Your task to perform on an android device: check android version Image 0: 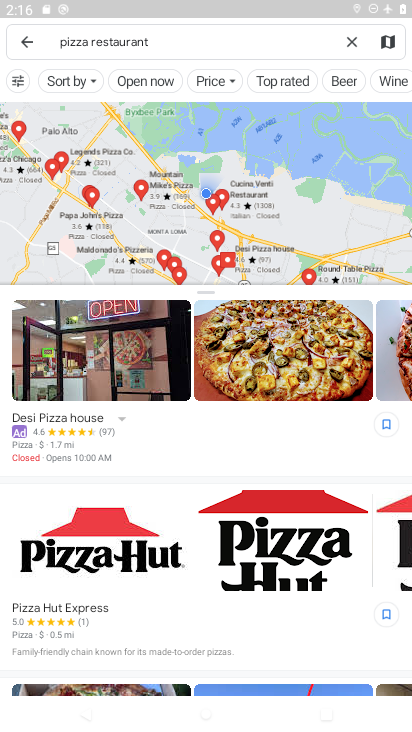
Step 0: press home button
Your task to perform on an android device: check android version Image 1: 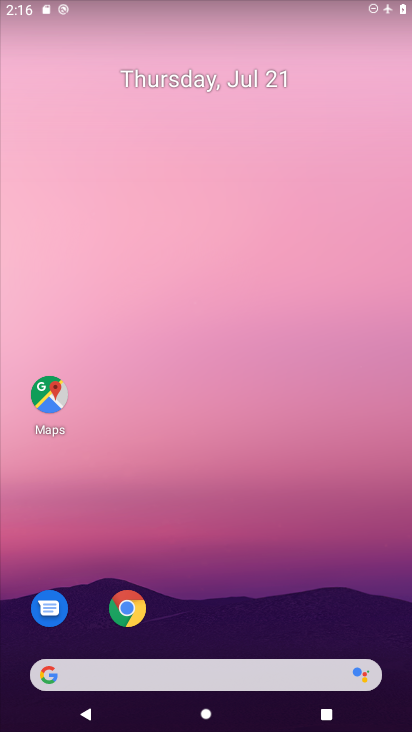
Step 1: drag from (235, 602) to (239, 154)
Your task to perform on an android device: check android version Image 2: 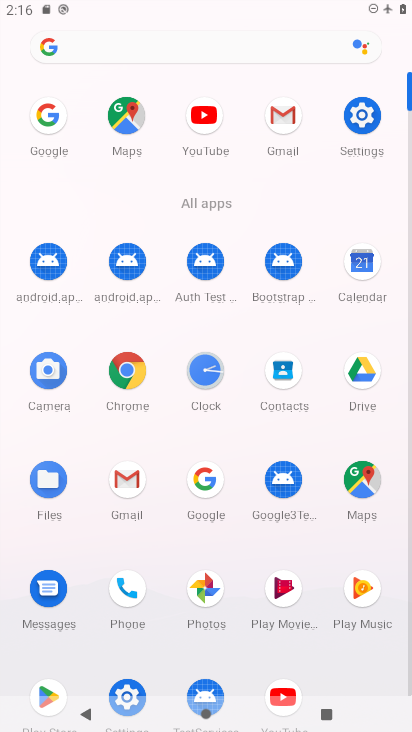
Step 2: click (365, 108)
Your task to perform on an android device: check android version Image 3: 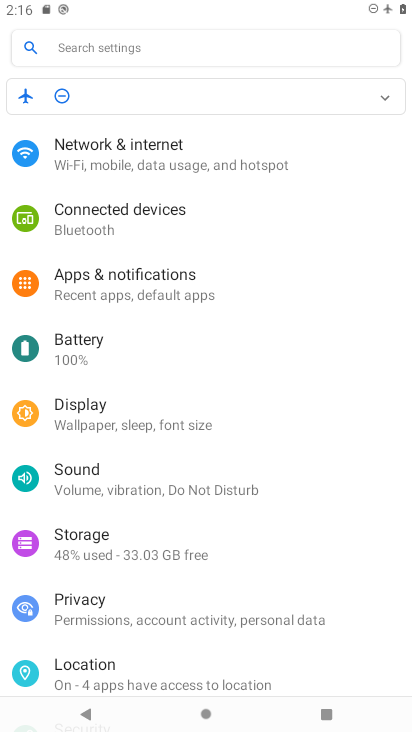
Step 3: drag from (136, 667) to (151, 380)
Your task to perform on an android device: check android version Image 4: 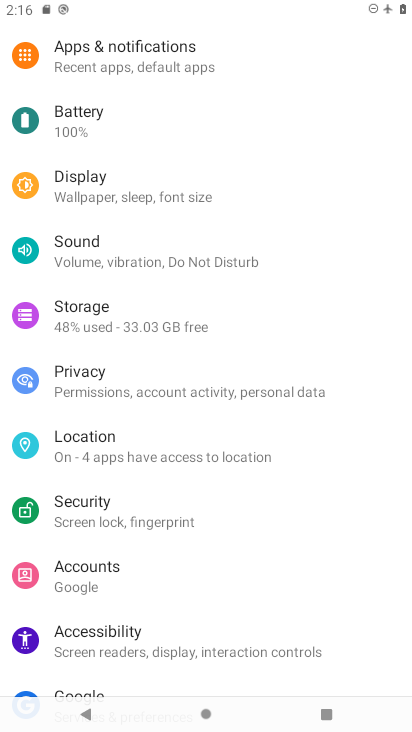
Step 4: drag from (81, 669) to (112, 394)
Your task to perform on an android device: check android version Image 5: 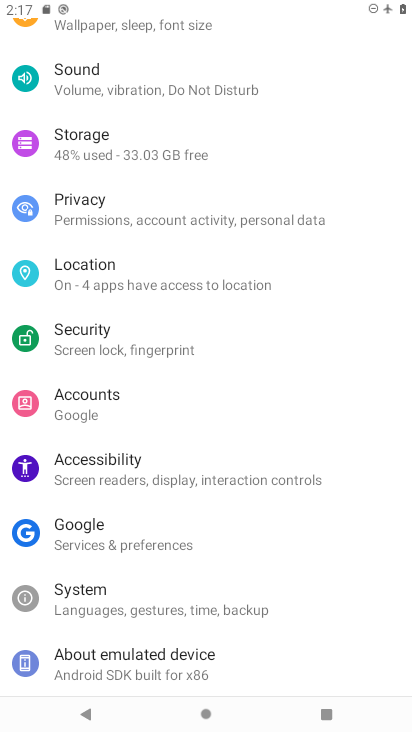
Step 5: click (146, 668)
Your task to perform on an android device: check android version Image 6: 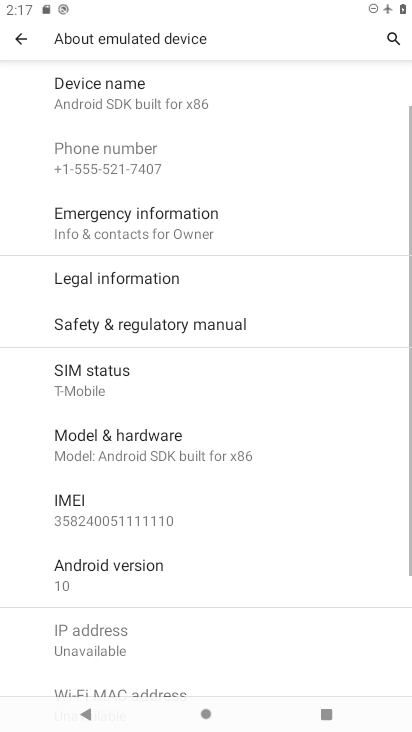
Step 6: click (124, 567)
Your task to perform on an android device: check android version Image 7: 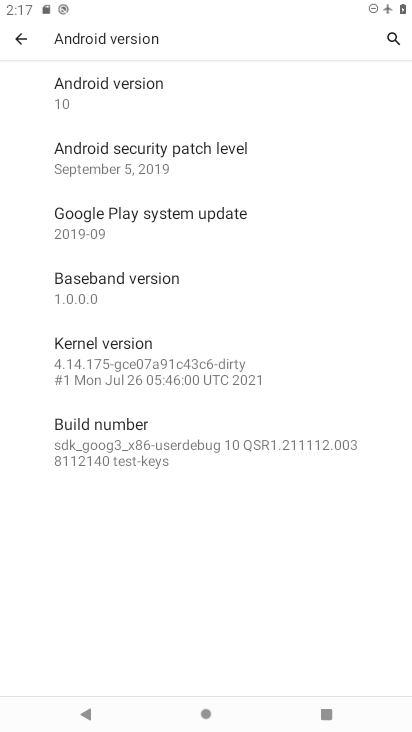
Step 7: click (100, 91)
Your task to perform on an android device: check android version Image 8: 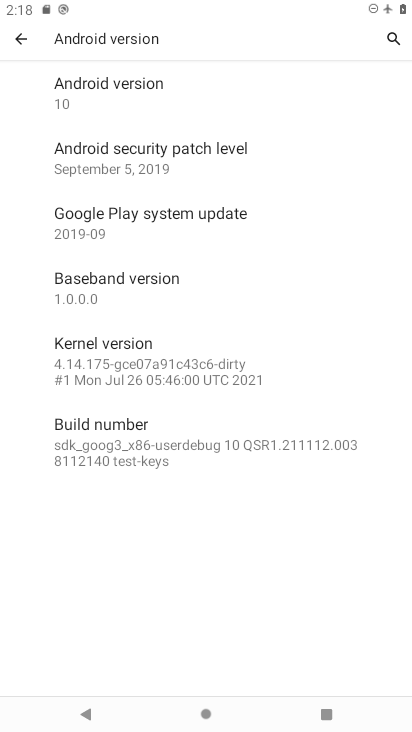
Step 8: task complete